Your task to perform on an android device: Go to accessibility settings Image 0: 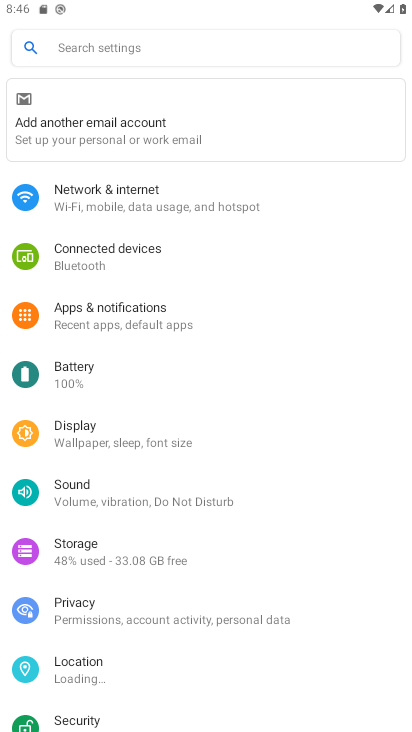
Step 0: drag from (246, 599) to (264, 134)
Your task to perform on an android device: Go to accessibility settings Image 1: 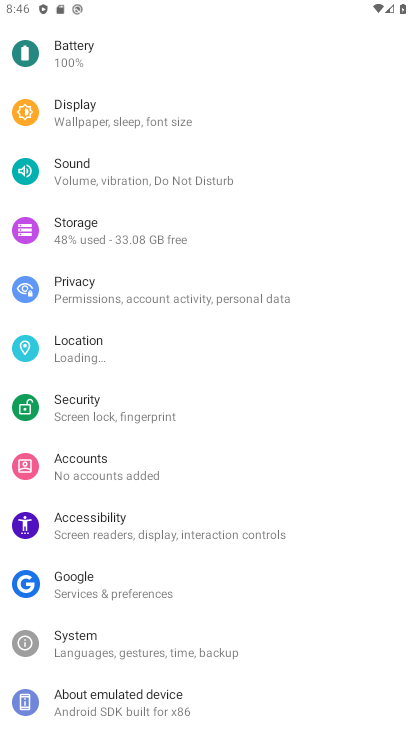
Step 1: click (144, 518)
Your task to perform on an android device: Go to accessibility settings Image 2: 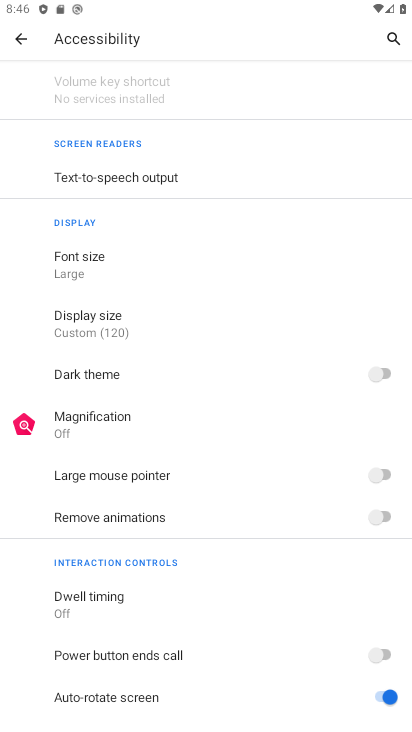
Step 2: task complete